Your task to perform on an android device: check out phone information Image 0: 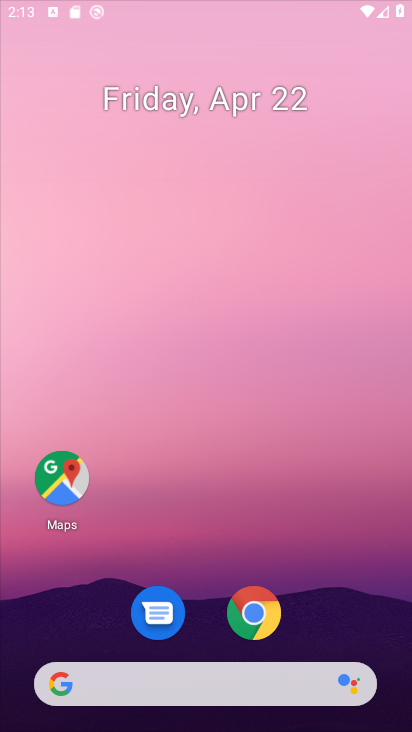
Step 0: click (254, 702)
Your task to perform on an android device: check out phone information Image 1: 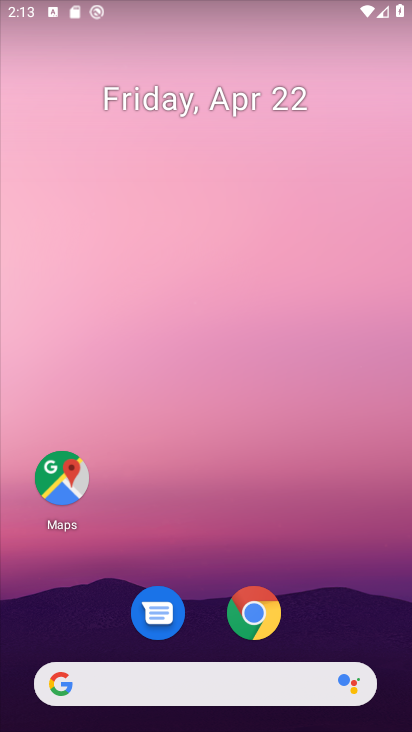
Step 1: click (254, 689)
Your task to perform on an android device: check out phone information Image 2: 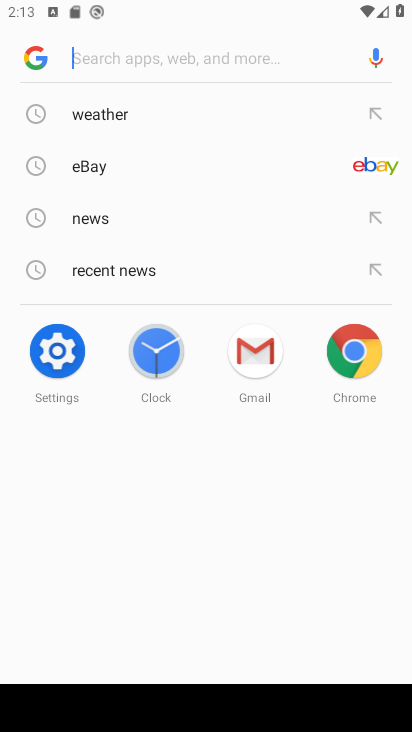
Step 2: press home button
Your task to perform on an android device: check out phone information Image 3: 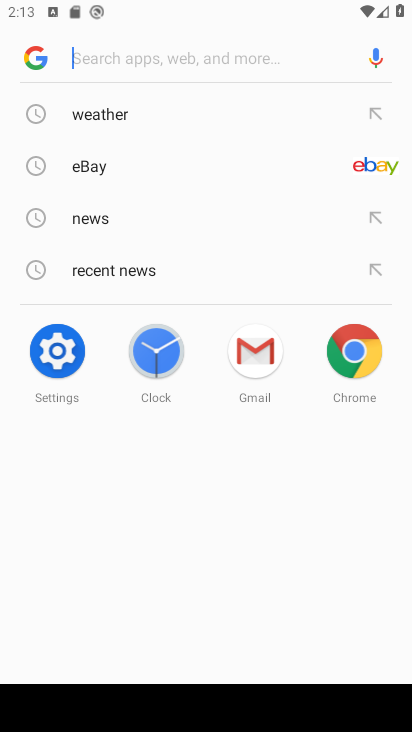
Step 3: type "redd"
Your task to perform on an android device: check out phone information Image 4: 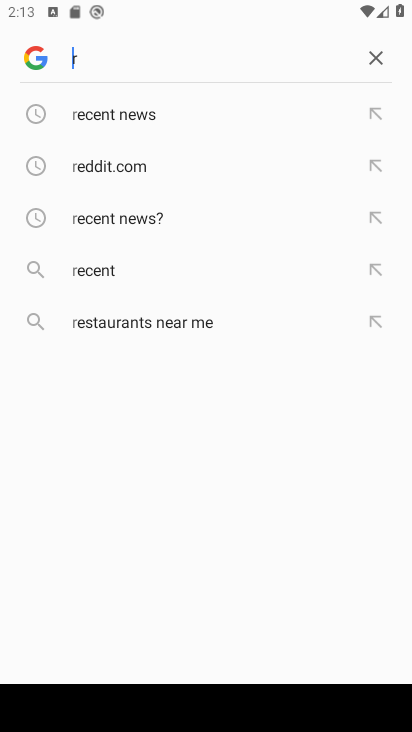
Step 4: press home button
Your task to perform on an android device: check out phone information Image 5: 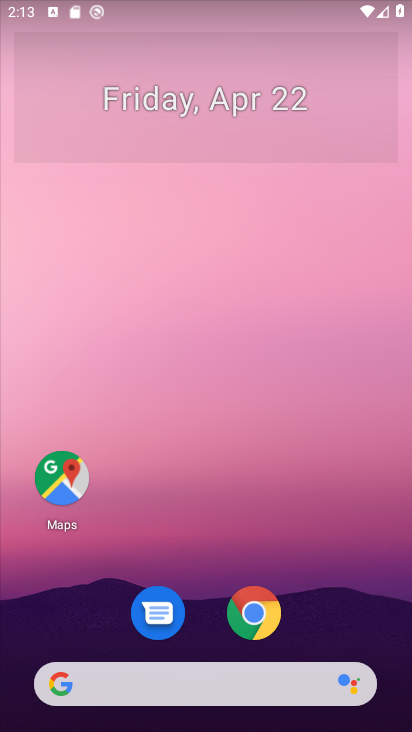
Step 5: drag from (214, 729) to (315, 0)
Your task to perform on an android device: check out phone information Image 6: 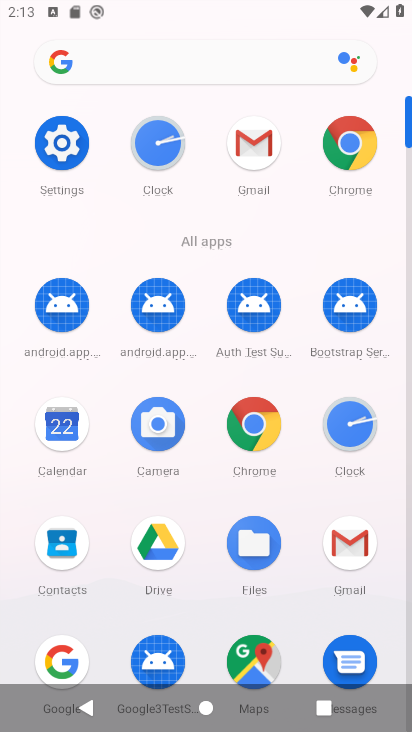
Step 6: click (61, 135)
Your task to perform on an android device: check out phone information Image 7: 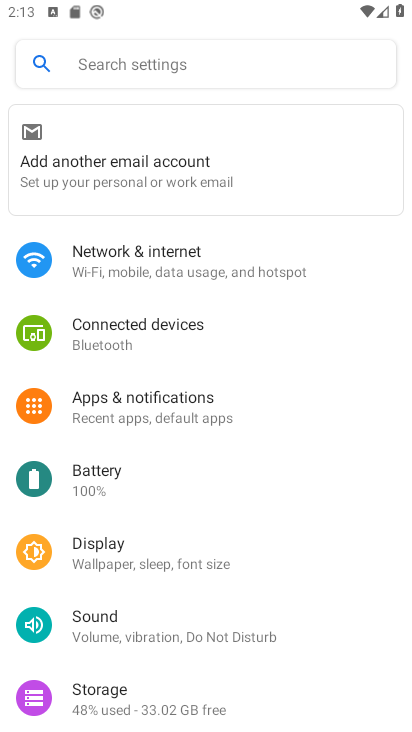
Step 7: drag from (229, 506) to (250, 38)
Your task to perform on an android device: check out phone information Image 8: 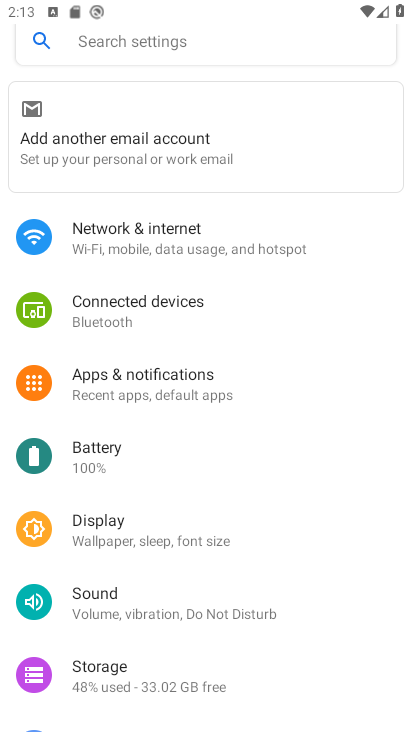
Step 8: drag from (302, 651) to (273, 51)
Your task to perform on an android device: check out phone information Image 9: 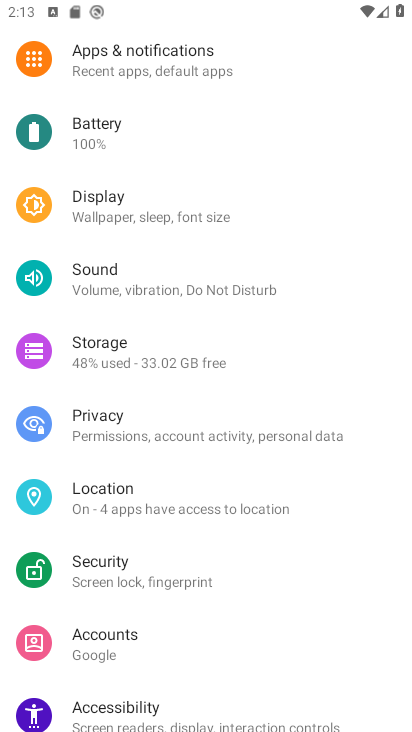
Step 9: drag from (277, 707) to (316, 117)
Your task to perform on an android device: check out phone information Image 10: 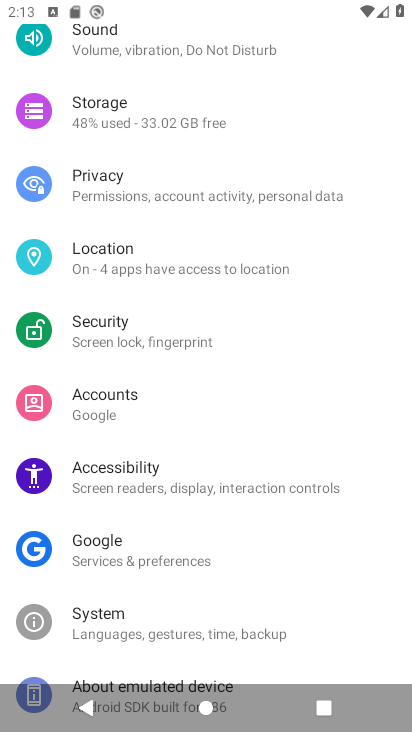
Step 10: drag from (366, 612) to (410, 189)
Your task to perform on an android device: check out phone information Image 11: 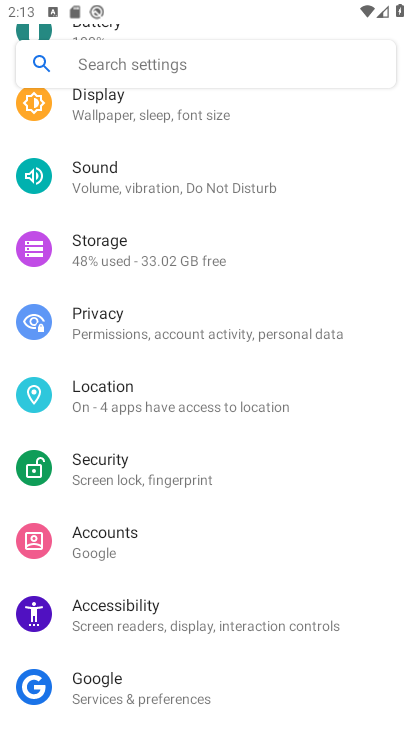
Step 11: drag from (281, 691) to (243, 31)
Your task to perform on an android device: check out phone information Image 12: 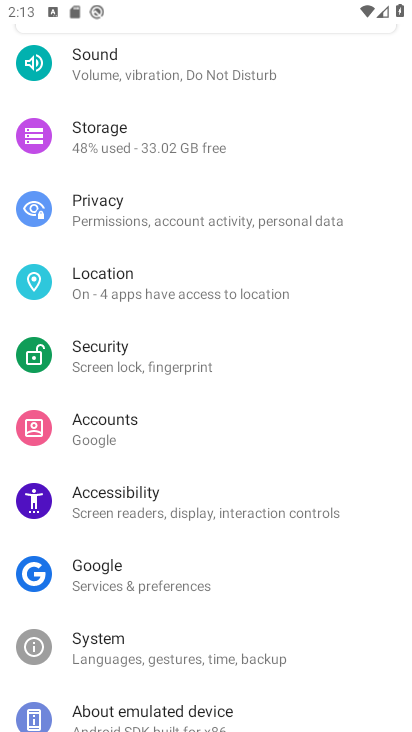
Step 12: click (239, 711)
Your task to perform on an android device: check out phone information Image 13: 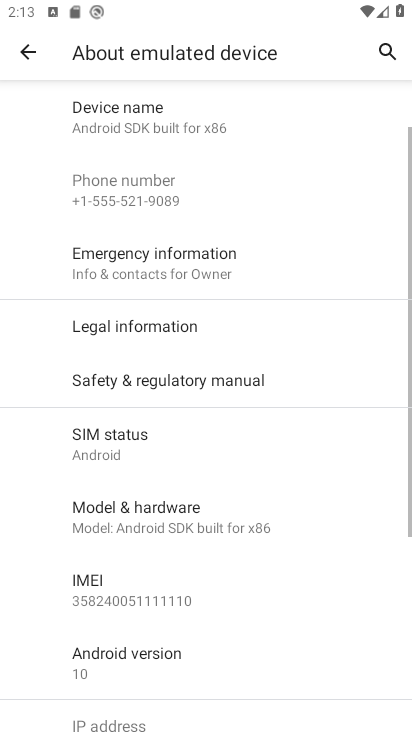
Step 13: task complete